Your task to perform on an android device: Go to privacy settings Image 0: 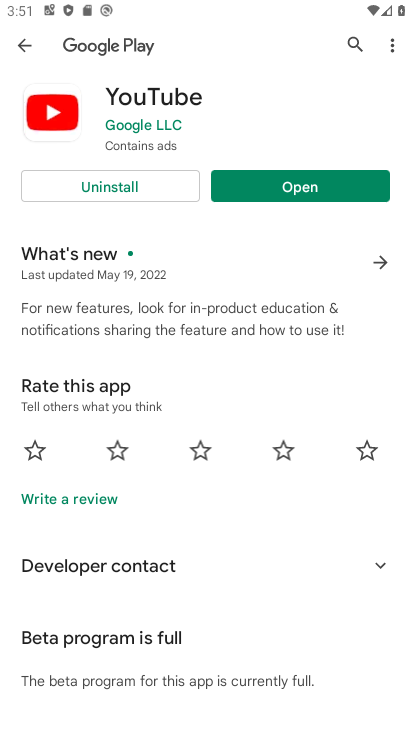
Step 0: press back button
Your task to perform on an android device: Go to privacy settings Image 1: 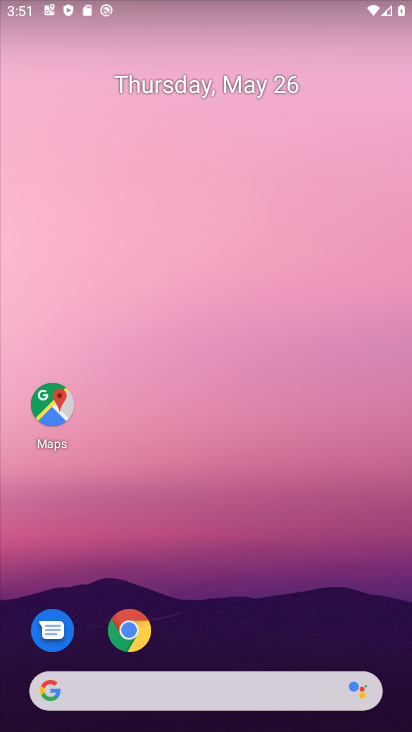
Step 1: drag from (245, 608) to (209, 43)
Your task to perform on an android device: Go to privacy settings Image 2: 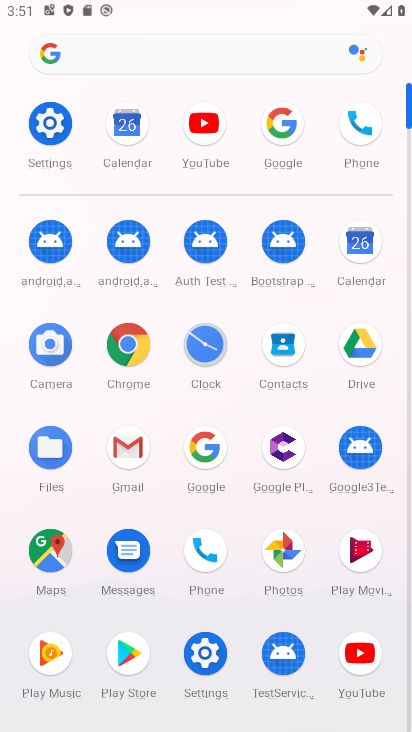
Step 2: click (52, 121)
Your task to perform on an android device: Go to privacy settings Image 3: 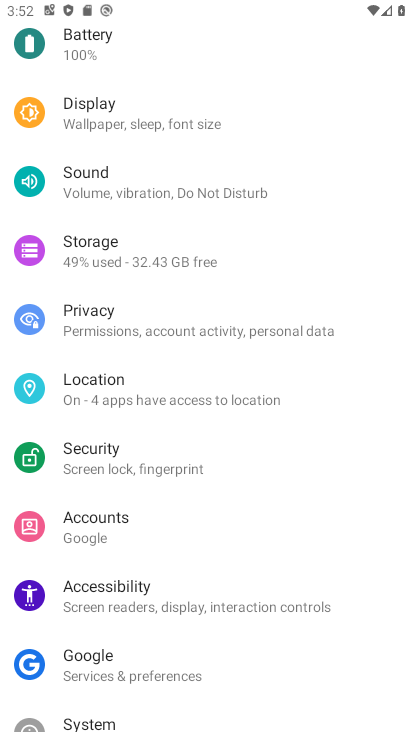
Step 3: click (193, 339)
Your task to perform on an android device: Go to privacy settings Image 4: 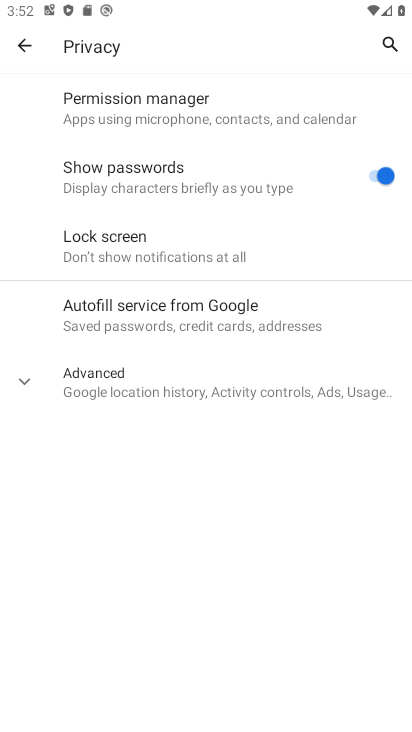
Step 4: task complete